Your task to perform on an android device: Go to Yahoo.com Image 0: 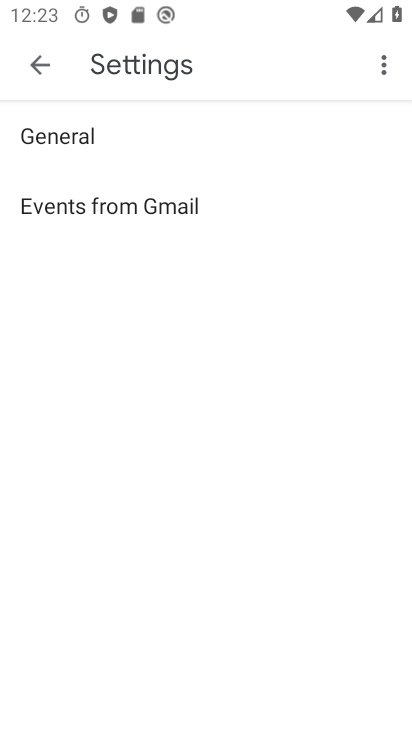
Step 0: press back button
Your task to perform on an android device: Go to Yahoo.com Image 1: 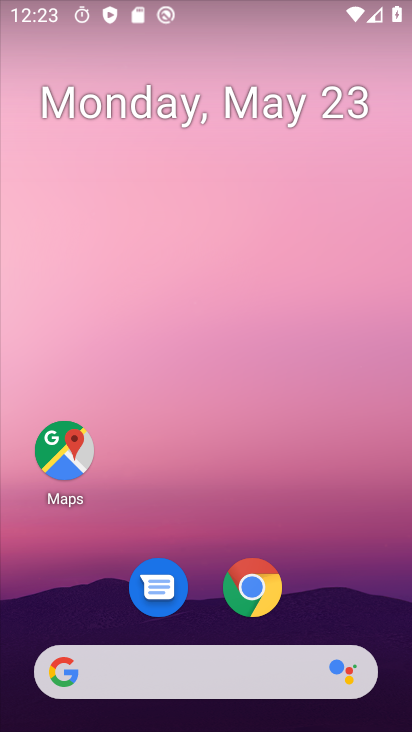
Step 1: click (254, 605)
Your task to perform on an android device: Go to Yahoo.com Image 2: 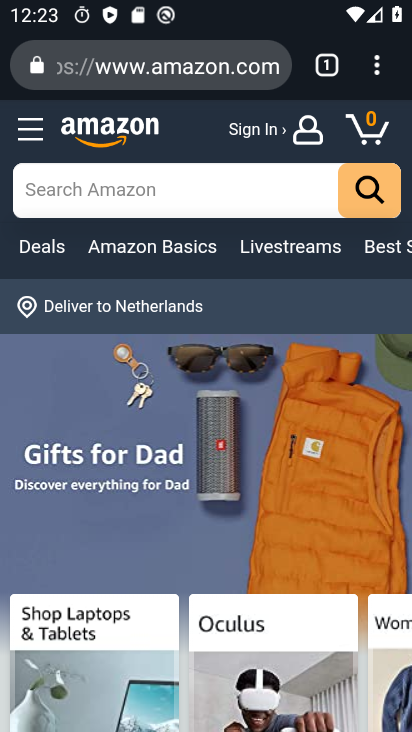
Step 2: click (318, 61)
Your task to perform on an android device: Go to Yahoo.com Image 3: 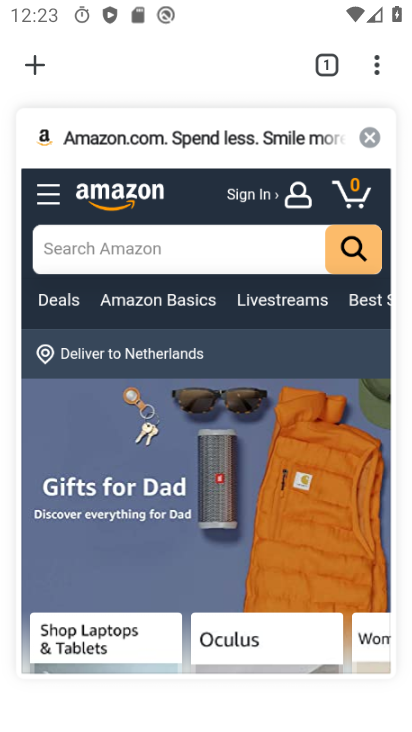
Step 3: click (41, 62)
Your task to perform on an android device: Go to Yahoo.com Image 4: 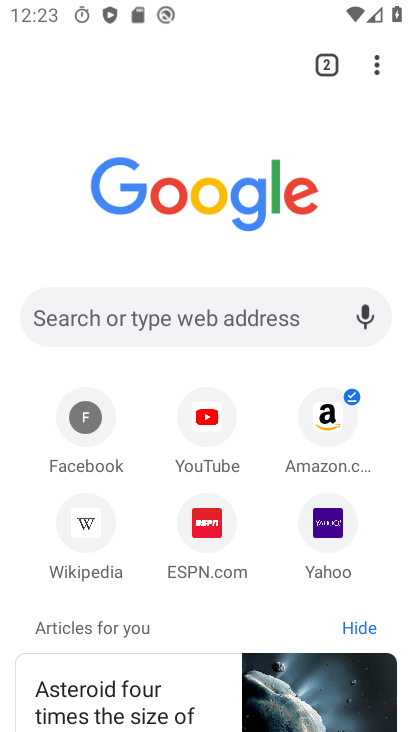
Step 4: click (330, 536)
Your task to perform on an android device: Go to Yahoo.com Image 5: 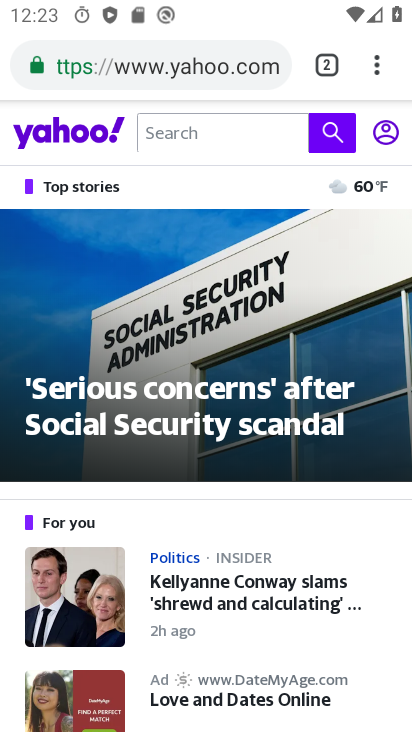
Step 5: task complete